Your task to perform on an android device: change notification settings in the gmail app Image 0: 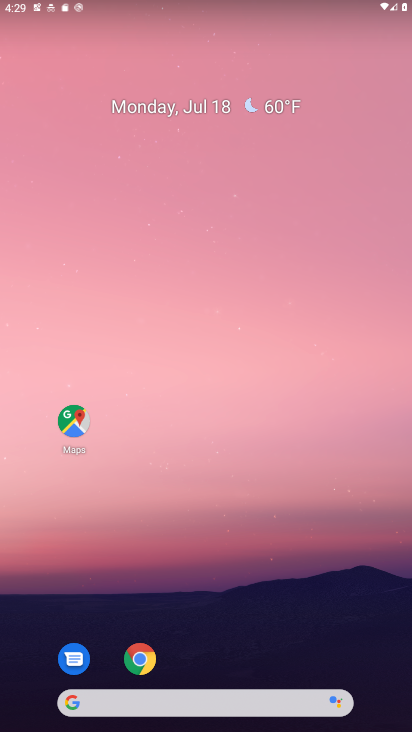
Step 0: drag from (276, 680) to (299, 4)
Your task to perform on an android device: change notification settings in the gmail app Image 1: 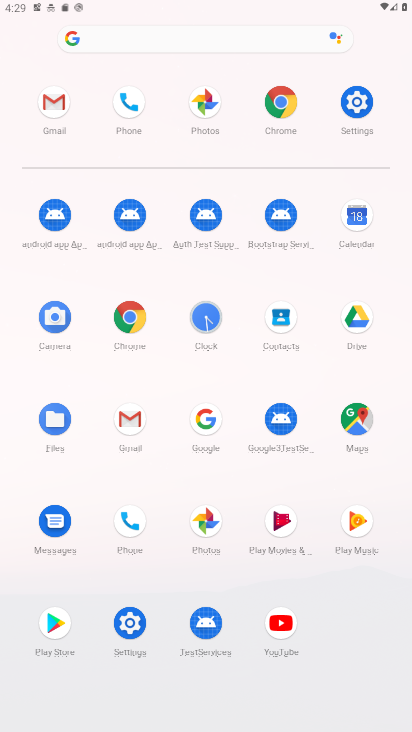
Step 1: click (140, 425)
Your task to perform on an android device: change notification settings in the gmail app Image 2: 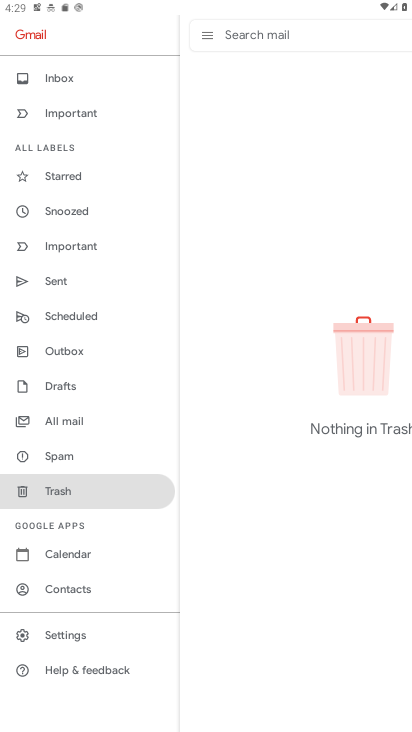
Step 2: click (86, 642)
Your task to perform on an android device: change notification settings in the gmail app Image 3: 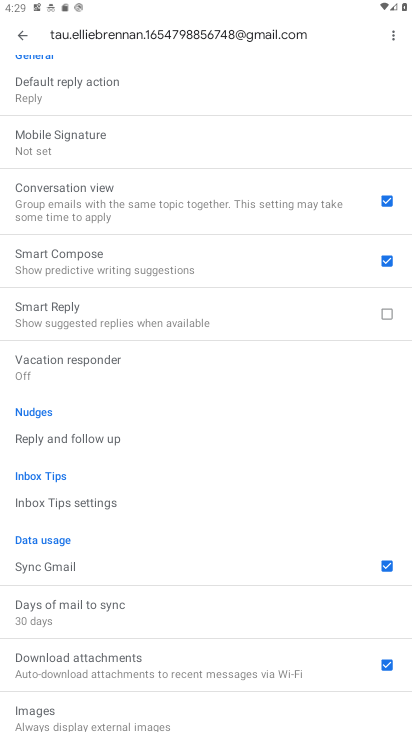
Step 3: drag from (143, 205) to (174, 574)
Your task to perform on an android device: change notification settings in the gmail app Image 4: 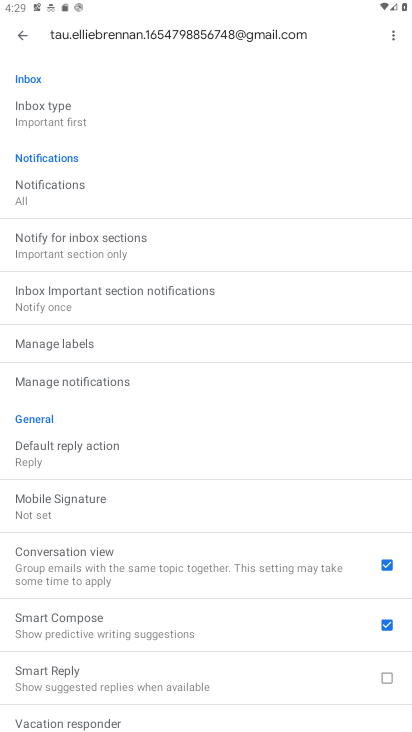
Step 4: click (99, 375)
Your task to perform on an android device: change notification settings in the gmail app Image 5: 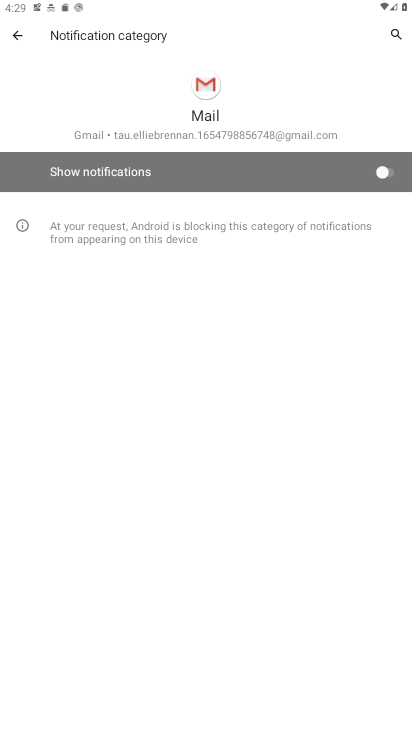
Step 5: click (386, 174)
Your task to perform on an android device: change notification settings in the gmail app Image 6: 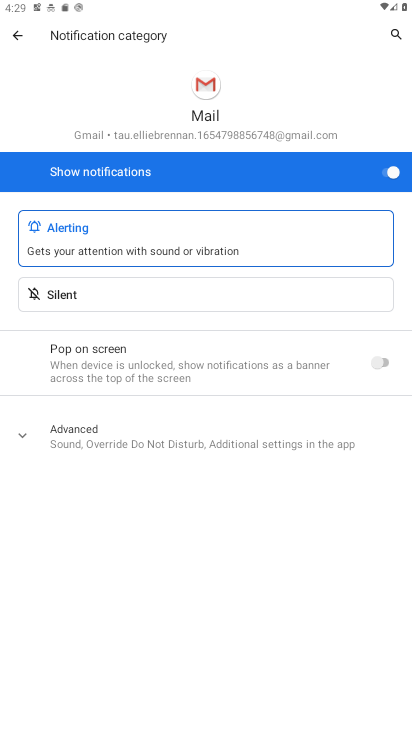
Step 6: task complete